Your task to perform on an android device: Open my contact list Image 0: 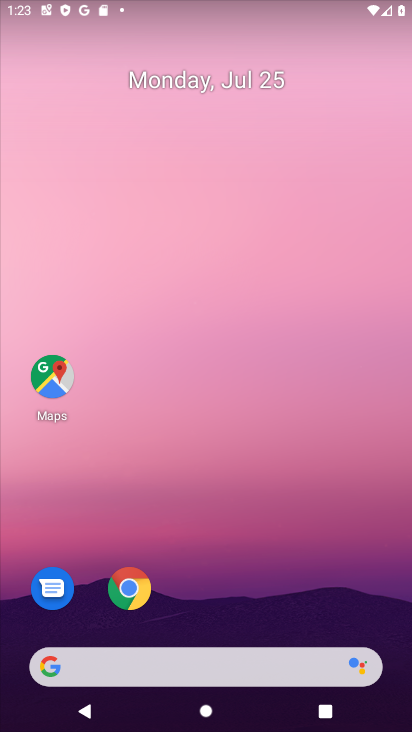
Step 0: drag from (192, 509) to (158, 267)
Your task to perform on an android device: Open my contact list Image 1: 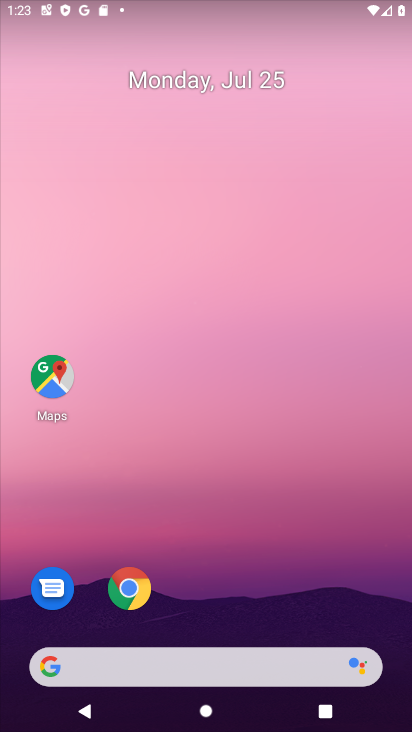
Step 1: drag from (193, 492) to (191, 107)
Your task to perform on an android device: Open my contact list Image 2: 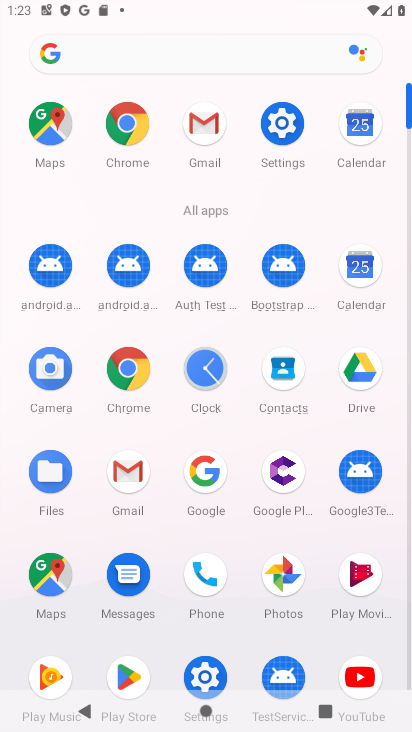
Step 2: click (288, 387)
Your task to perform on an android device: Open my contact list Image 3: 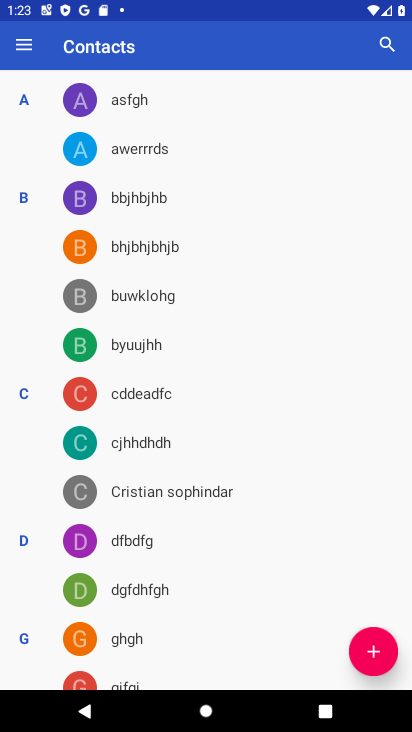
Step 3: task complete